Your task to perform on an android device: open app "Google Chat" Image 0: 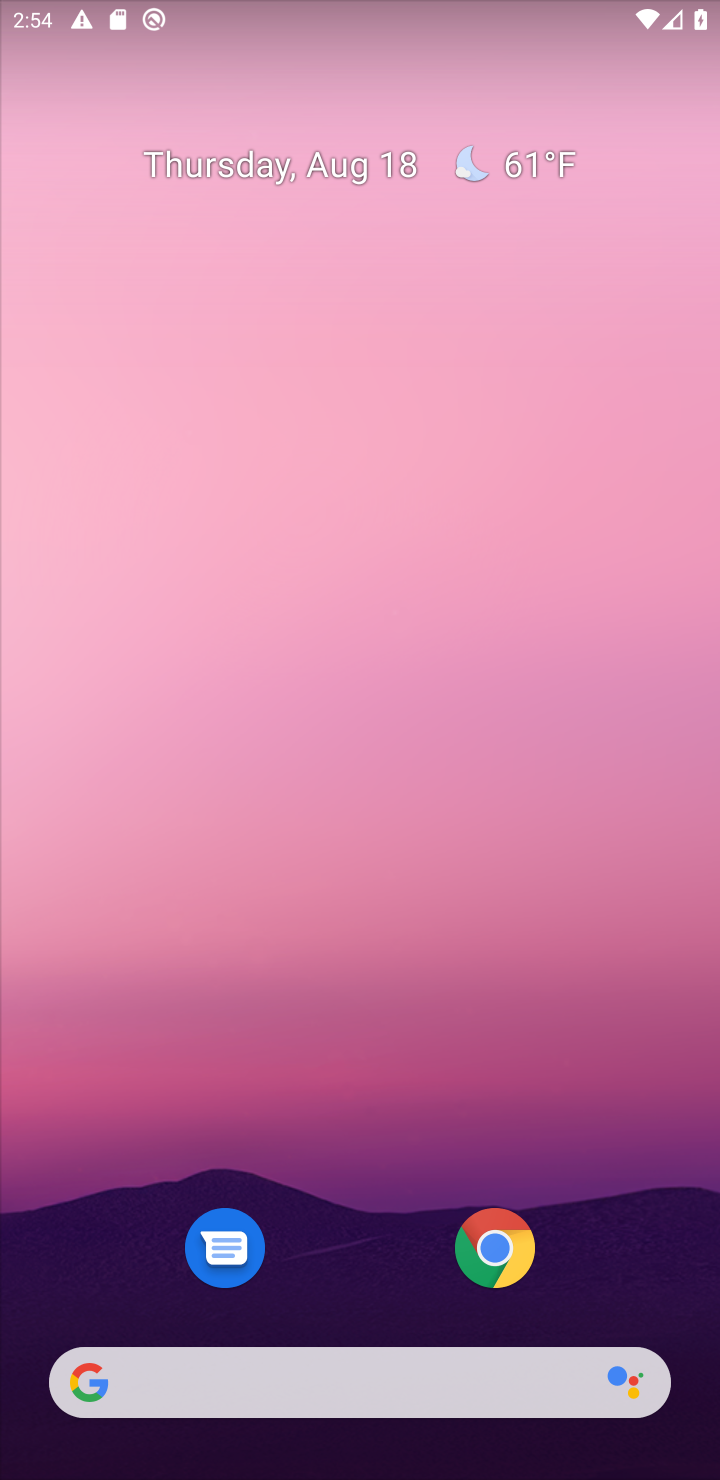
Step 0: drag from (354, 1266) to (325, 269)
Your task to perform on an android device: open app "Google Chat" Image 1: 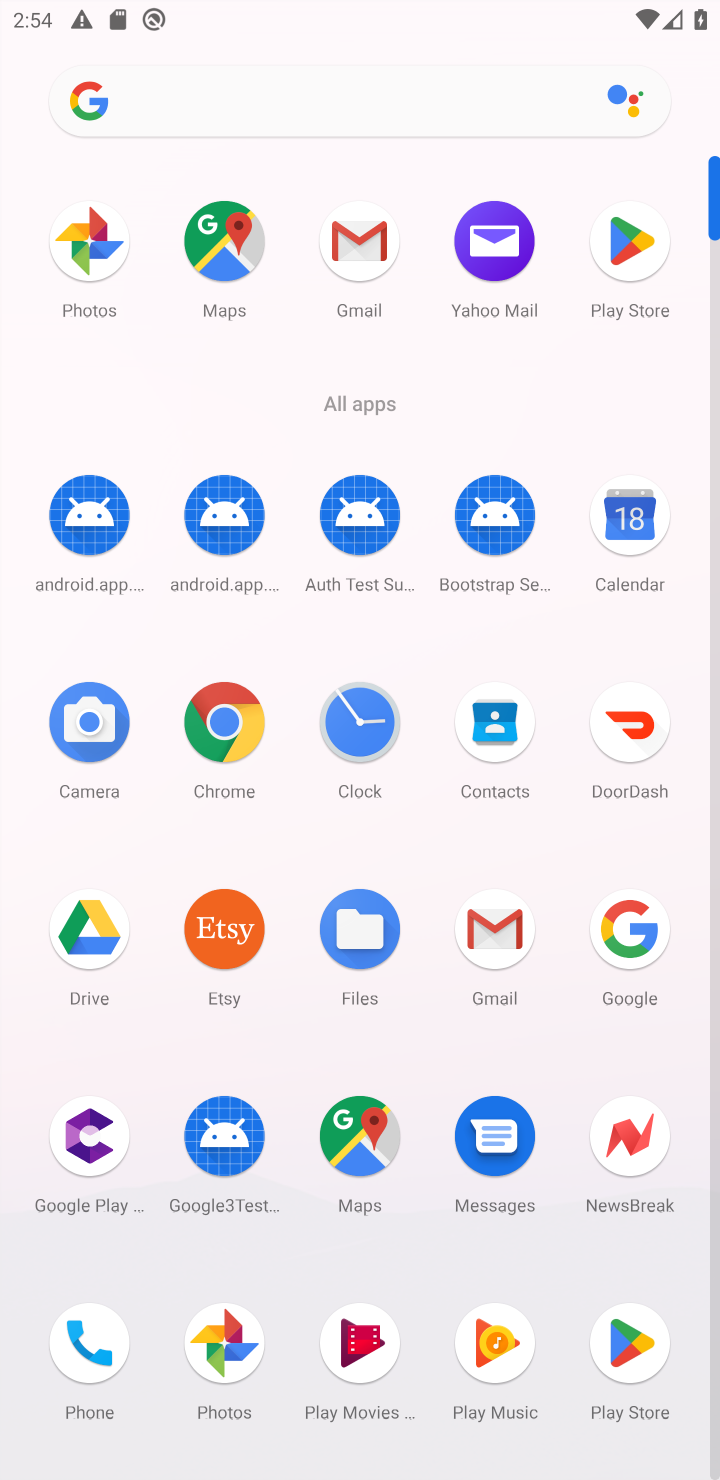
Step 1: click (615, 1338)
Your task to perform on an android device: open app "Google Chat" Image 2: 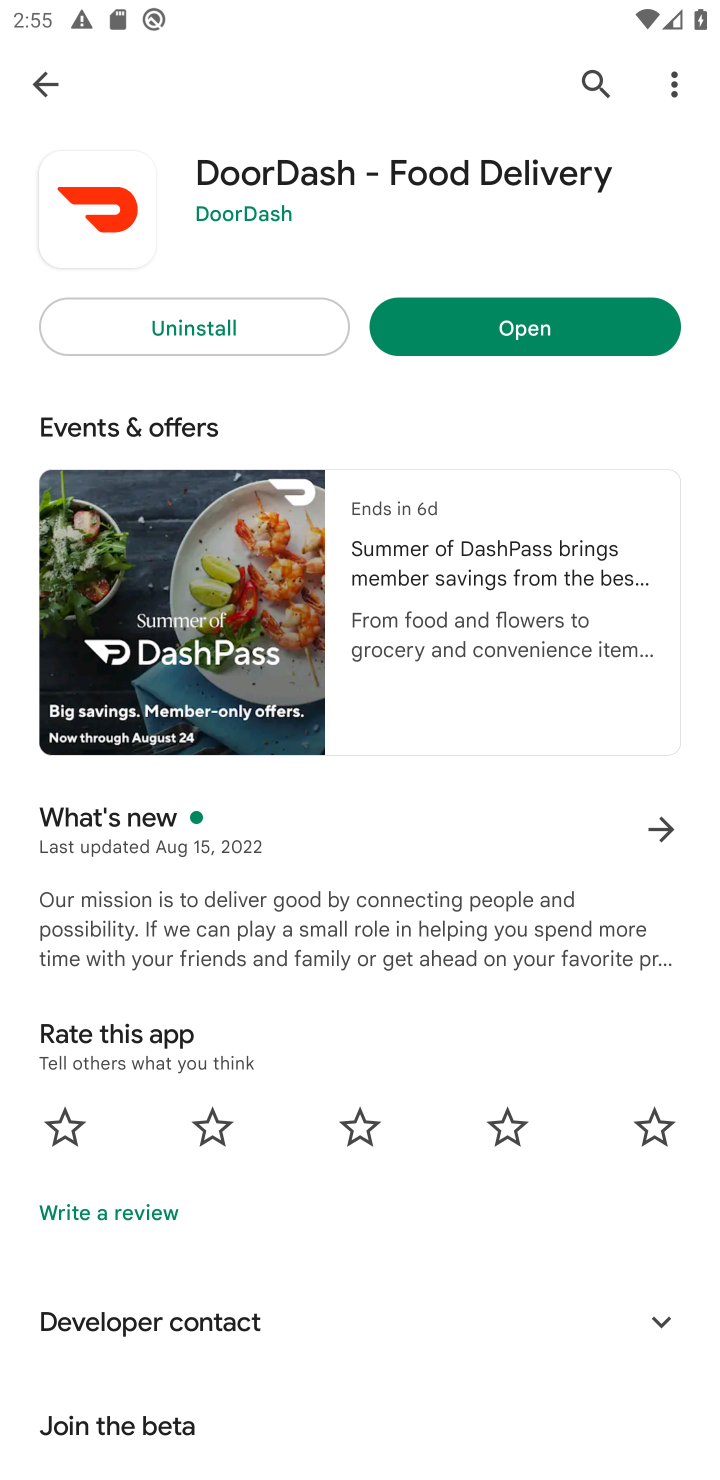
Step 2: click (592, 72)
Your task to perform on an android device: open app "Google Chat" Image 3: 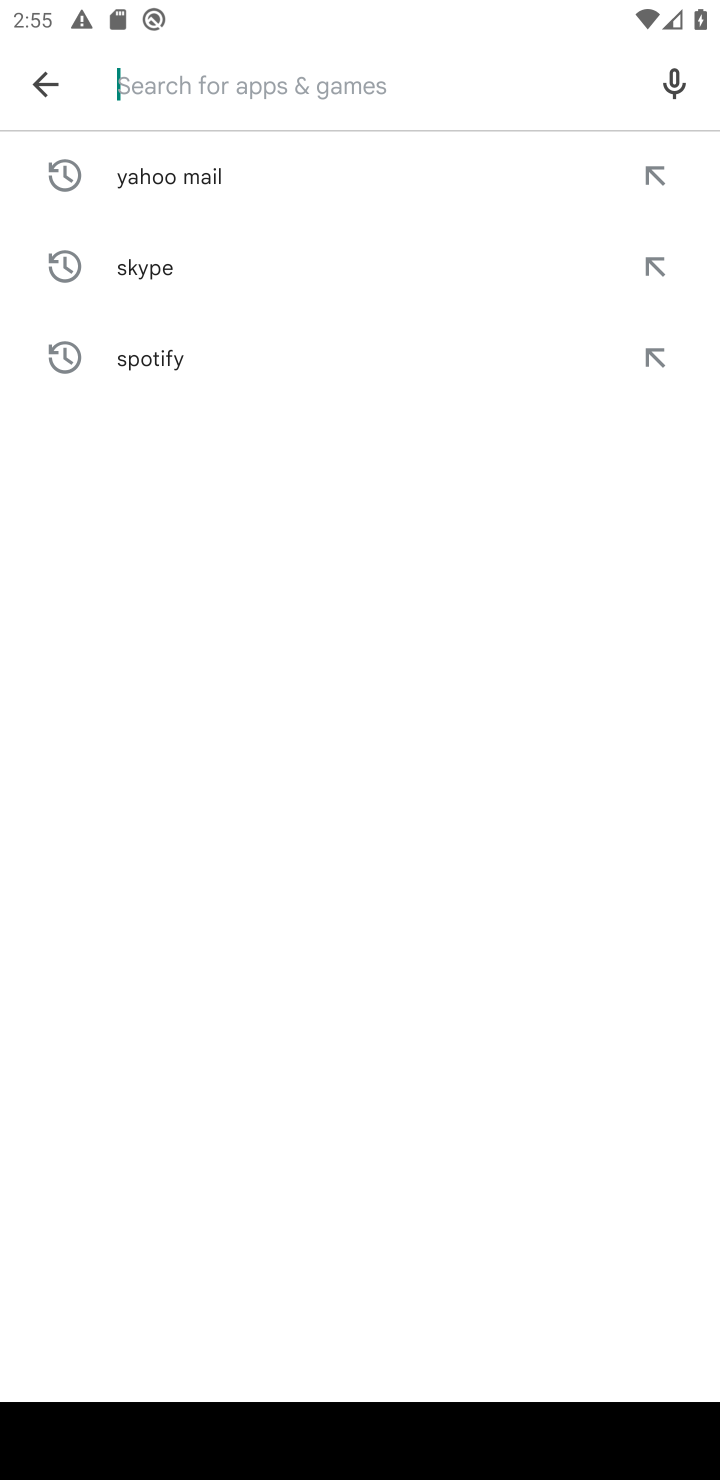
Step 3: type "Google Chat"
Your task to perform on an android device: open app "Google Chat" Image 4: 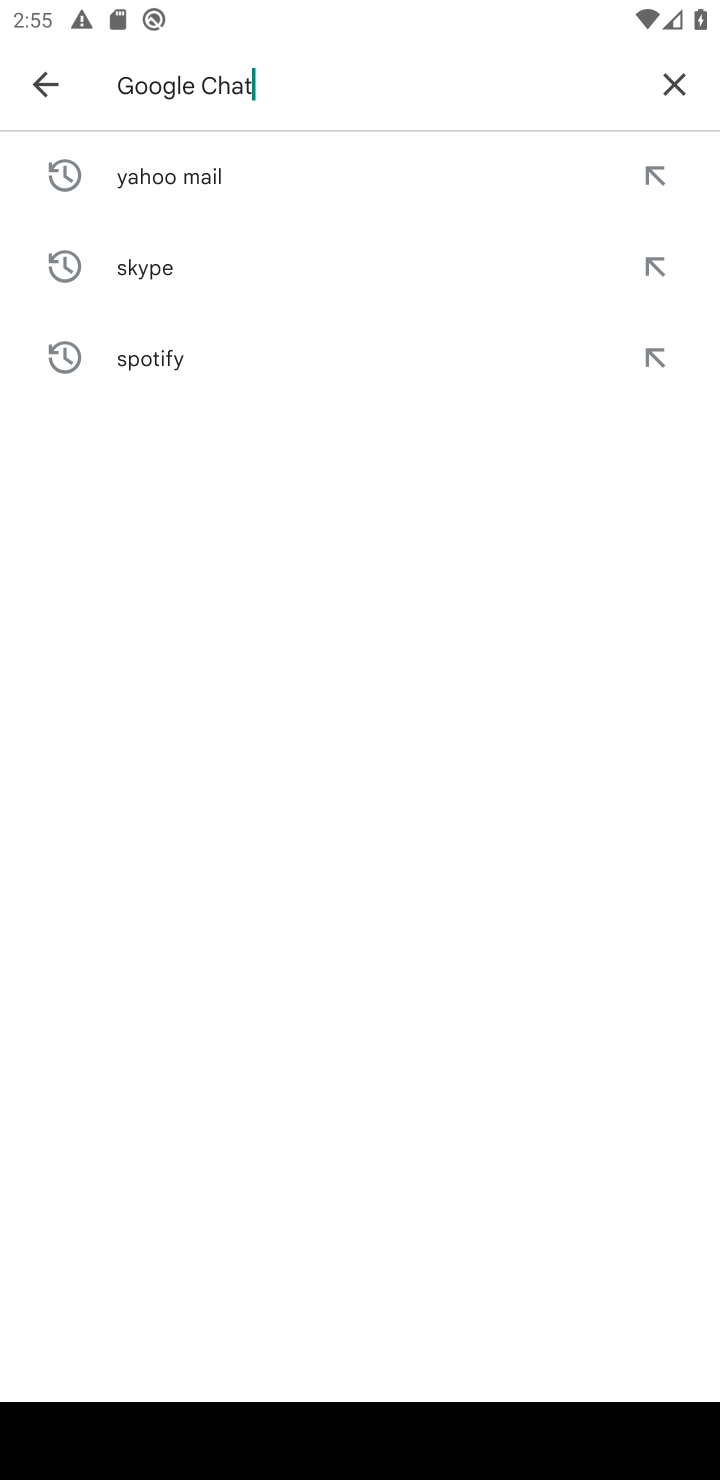
Step 4: type ""
Your task to perform on an android device: open app "Google Chat" Image 5: 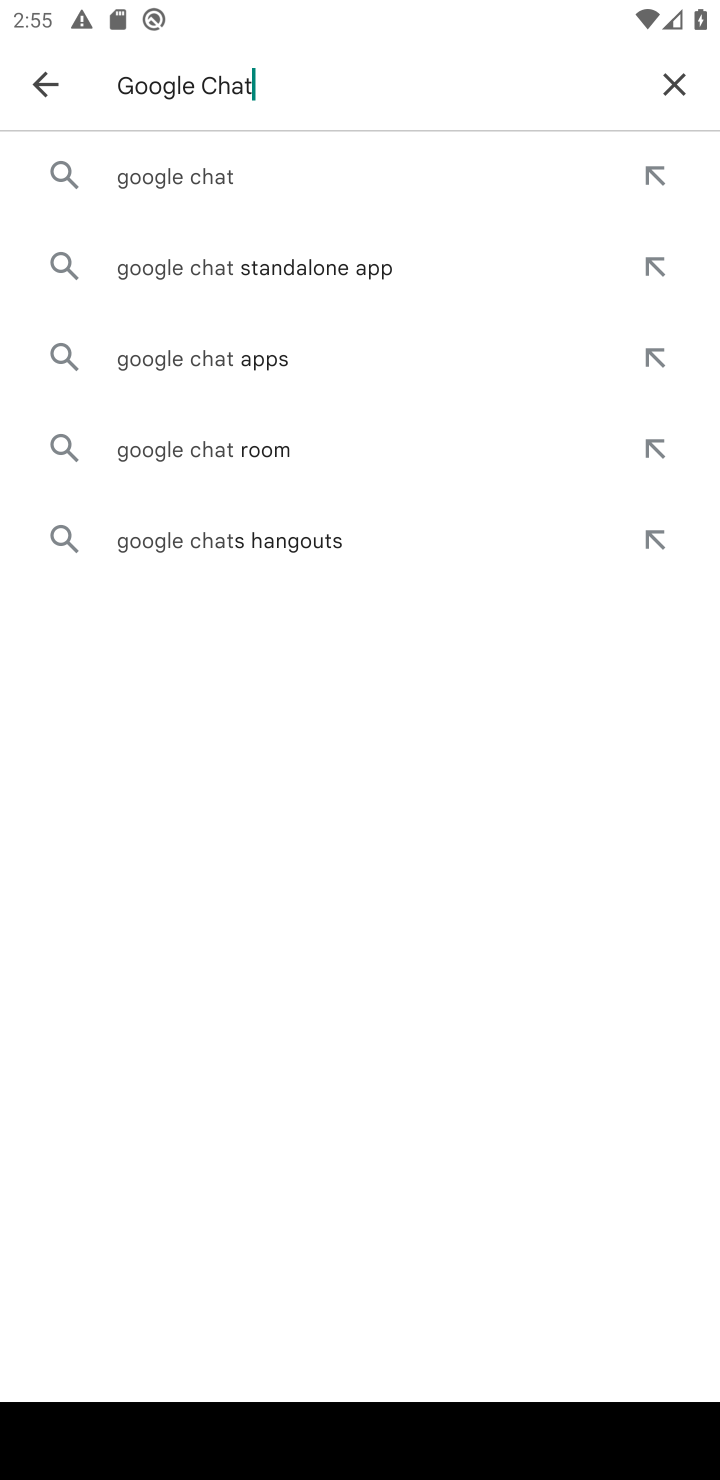
Step 5: click (146, 166)
Your task to perform on an android device: open app "Google Chat" Image 6: 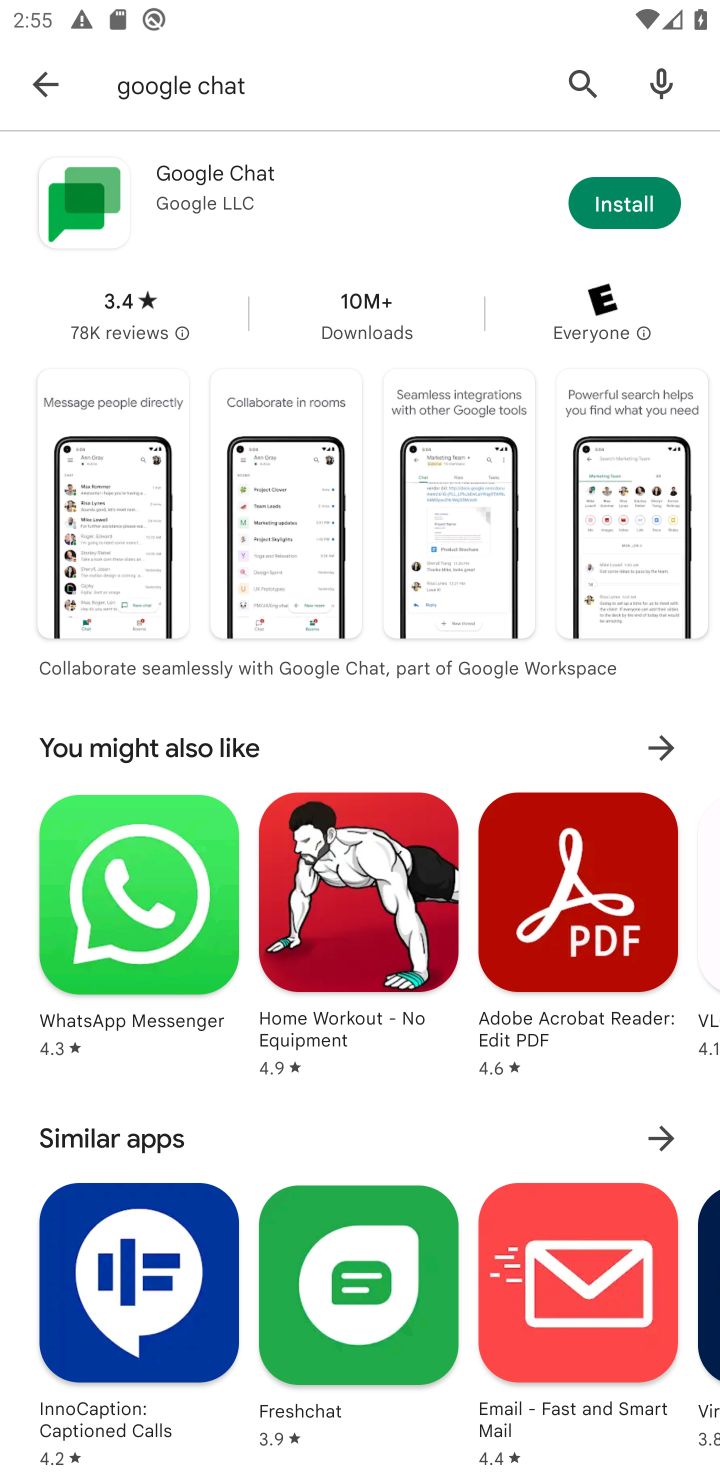
Step 6: task complete